Your task to perform on an android device: Open Google Image 0: 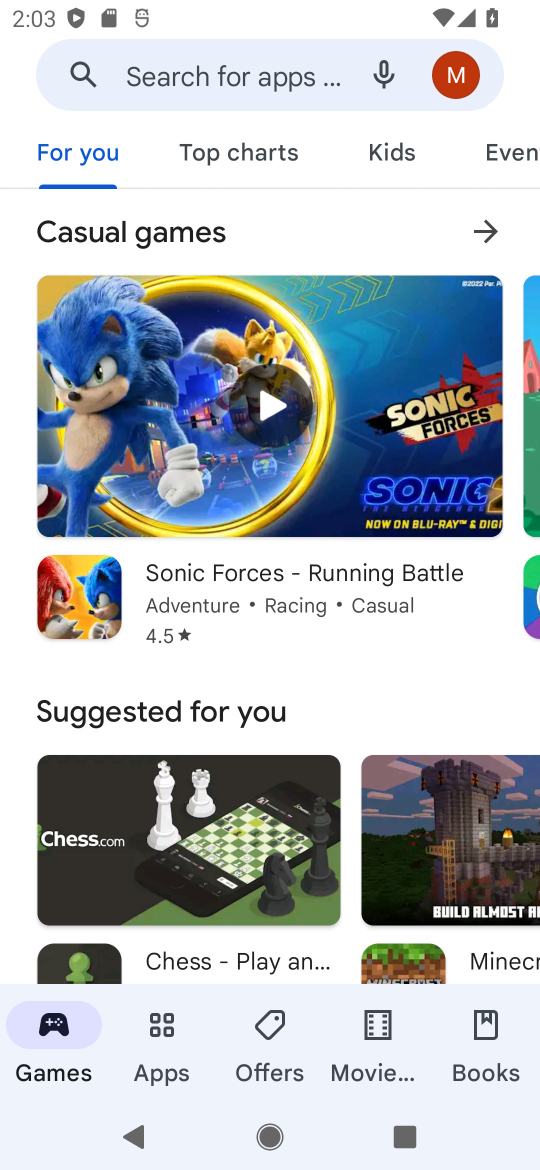
Step 0: press home button
Your task to perform on an android device: Open Google Image 1: 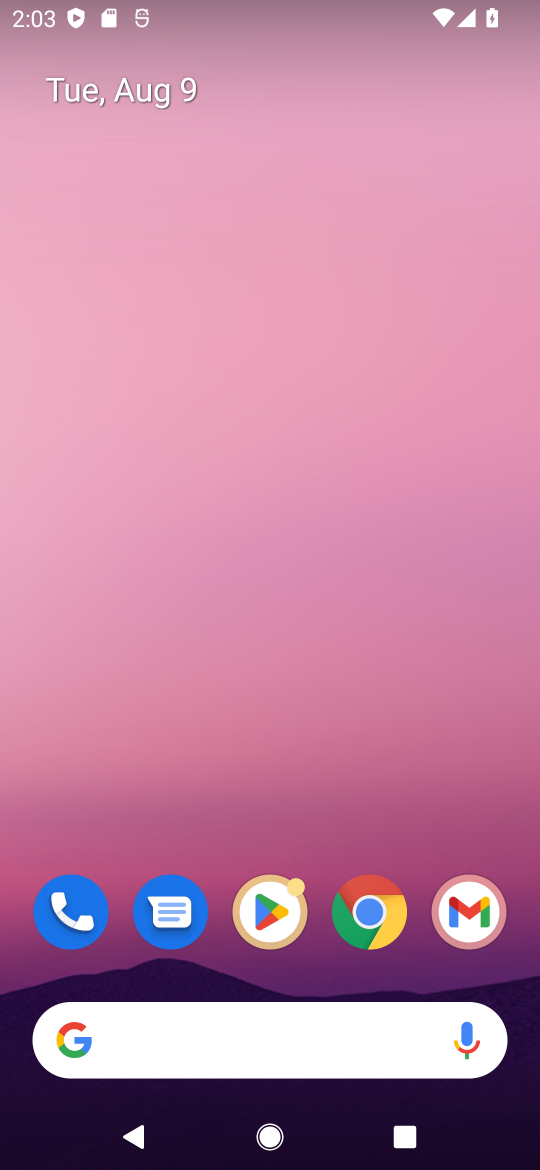
Step 1: drag from (236, 767) to (183, 160)
Your task to perform on an android device: Open Google Image 2: 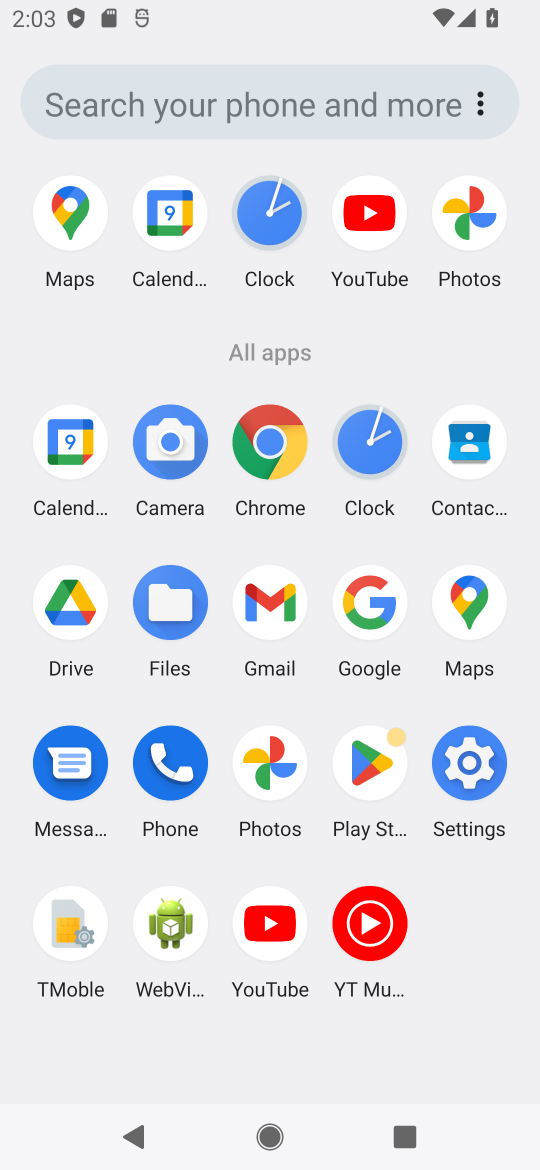
Step 2: click (372, 606)
Your task to perform on an android device: Open Google Image 3: 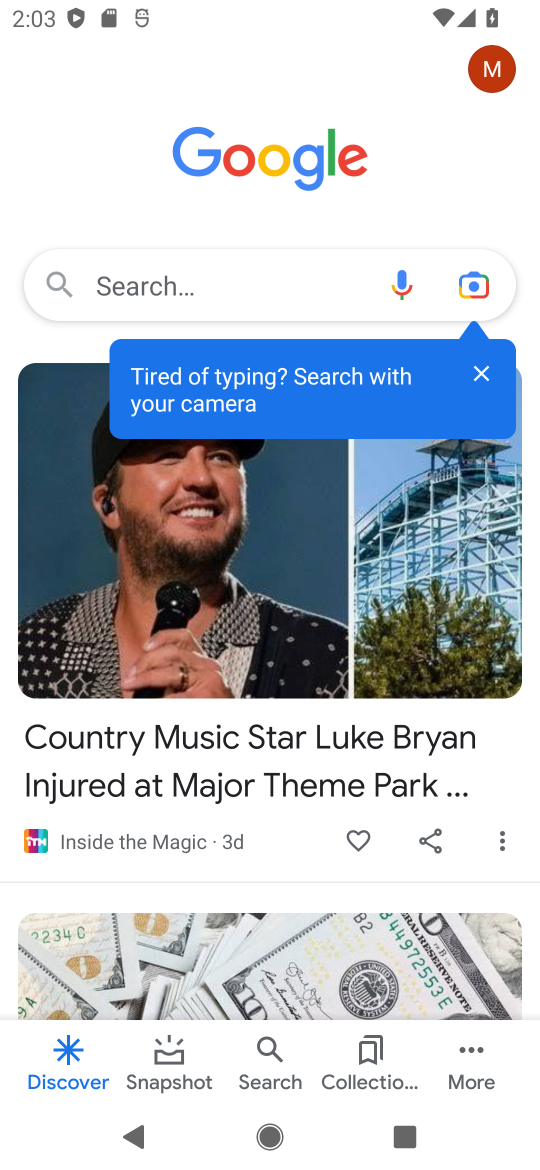
Step 3: task complete